Your task to perform on an android device: toggle sleep mode Image 0: 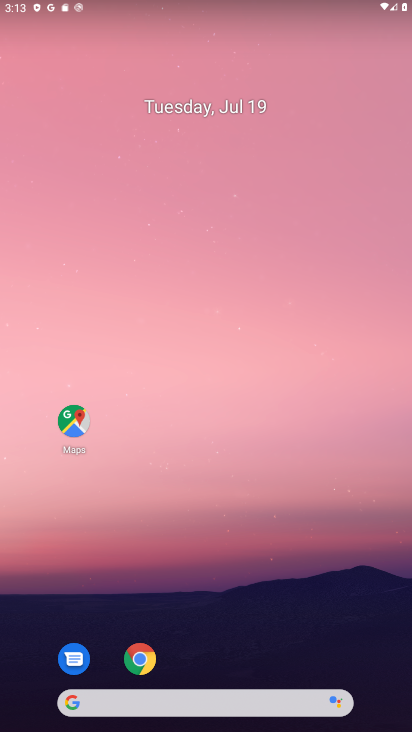
Step 0: drag from (230, 641) to (227, 181)
Your task to perform on an android device: toggle sleep mode Image 1: 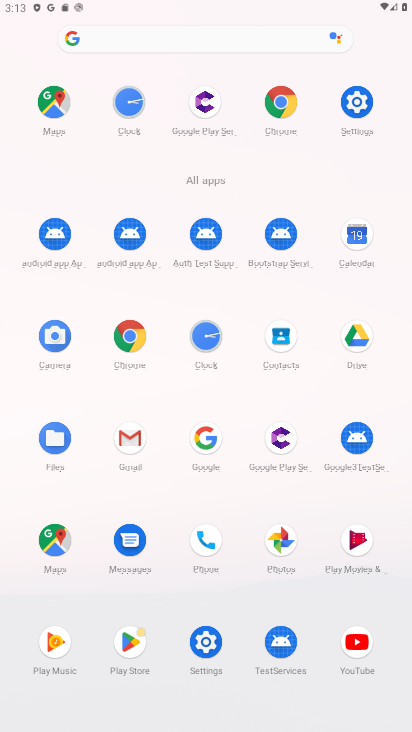
Step 1: click (204, 636)
Your task to perform on an android device: toggle sleep mode Image 2: 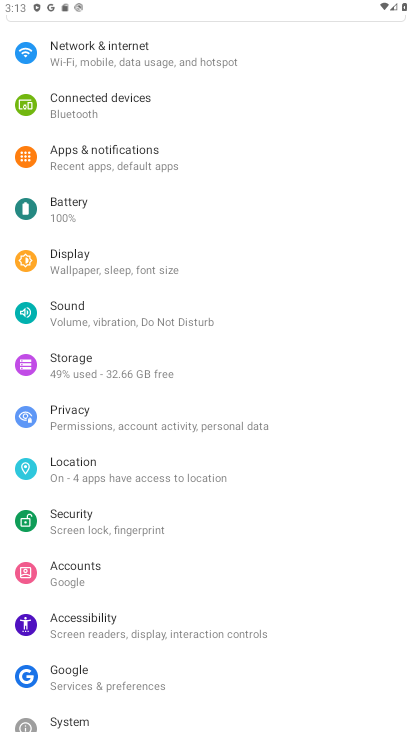
Step 2: click (141, 281)
Your task to perform on an android device: toggle sleep mode Image 3: 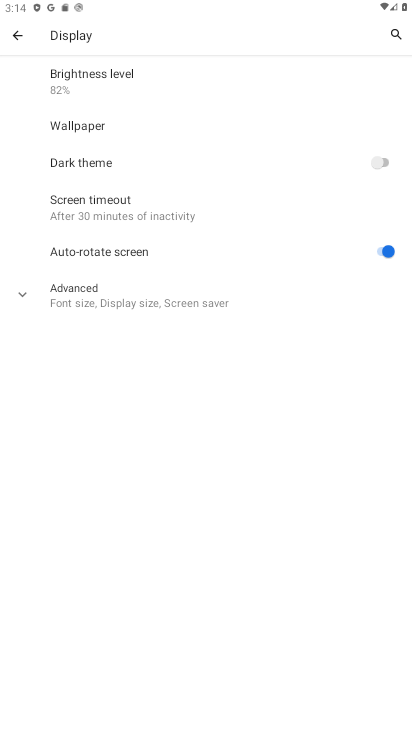
Step 3: click (232, 299)
Your task to perform on an android device: toggle sleep mode Image 4: 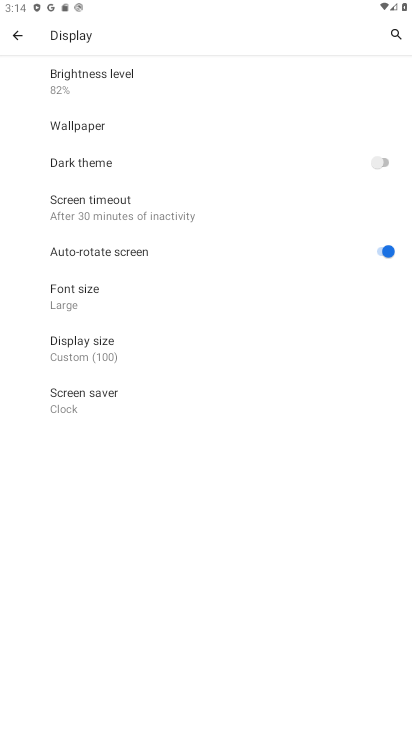
Step 4: task complete